Your task to perform on an android device: Where can I buy a nice beach cooler? Image 0: 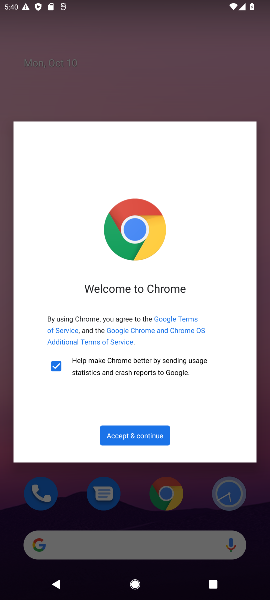
Step 0: press home button
Your task to perform on an android device: Where can I buy a nice beach cooler? Image 1: 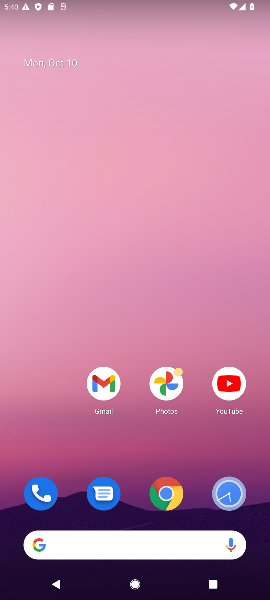
Step 1: drag from (118, 472) to (110, 194)
Your task to perform on an android device: Where can I buy a nice beach cooler? Image 2: 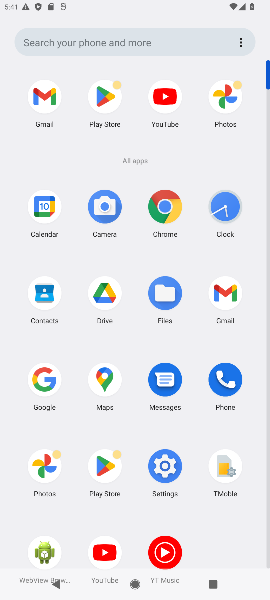
Step 2: click (109, 38)
Your task to perform on an android device: Where can I buy a nice beach cooler? Image 3: 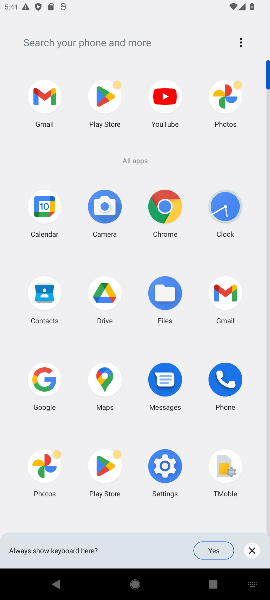
Step 3: type "Where can I buy a nice beach cooler?"
Your task to perform on an android device: Where can I buy a nice beach cooler? Image 4: 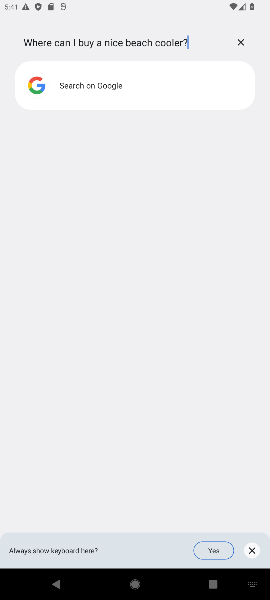
Step 4: click (80, 96)
Your task to perform on an android device: Where can I buy a nice beach cooler? Image 5: 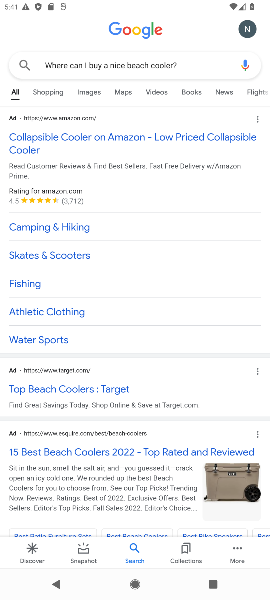
Step 5: task complete